Your task to perform on an android device: turn on data saver in the chrome app Image 0: 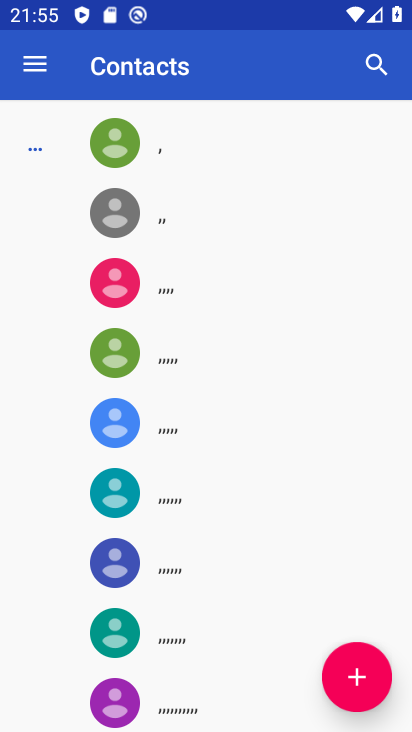
Step 0: press home button
Your task to perform on an android device: turn on data saver in the chrome app Image 1: 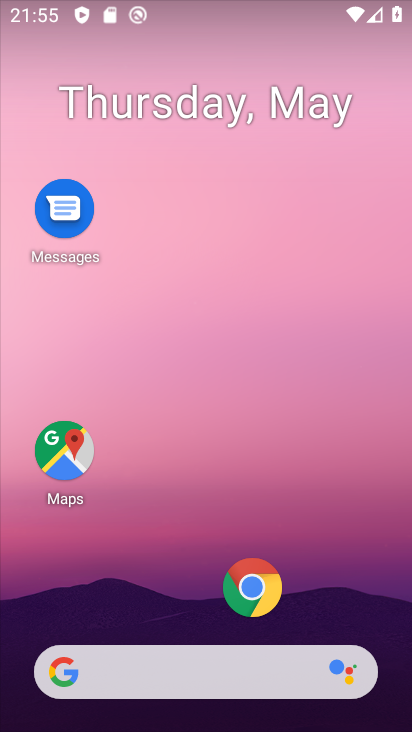
Step 1: click (240, 602)
Your task to perform on an android device: turn on data saver in the chrome app Image 2: 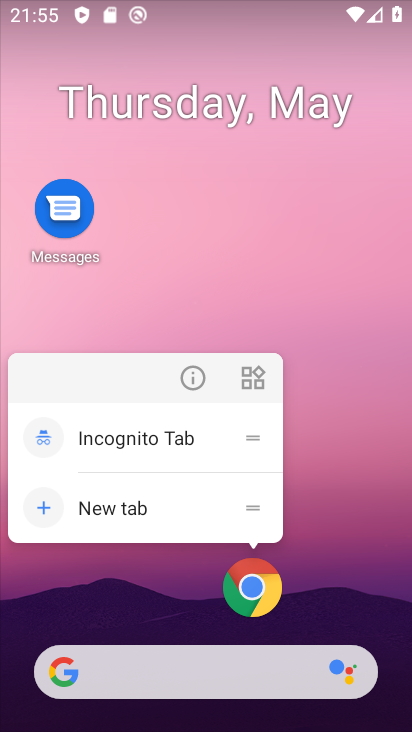
Step 2: click (247, 591)
Your task to perform on an android device: turn on data saver in the chrome app Image 3: 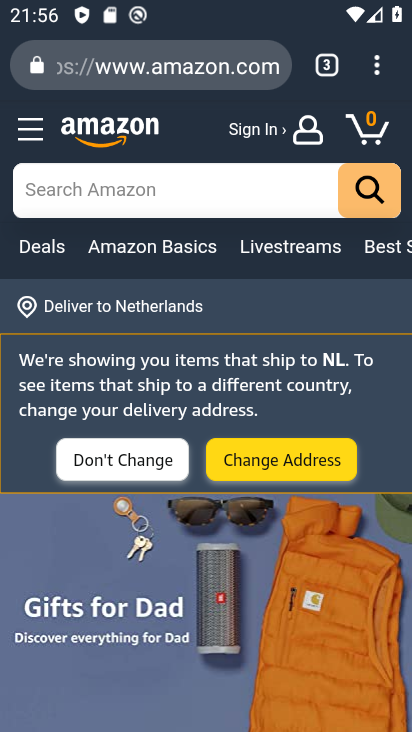
Step 3: click (376, 62)
Your task to perform on an android device: turn on data saver in the chrome app Image 4: 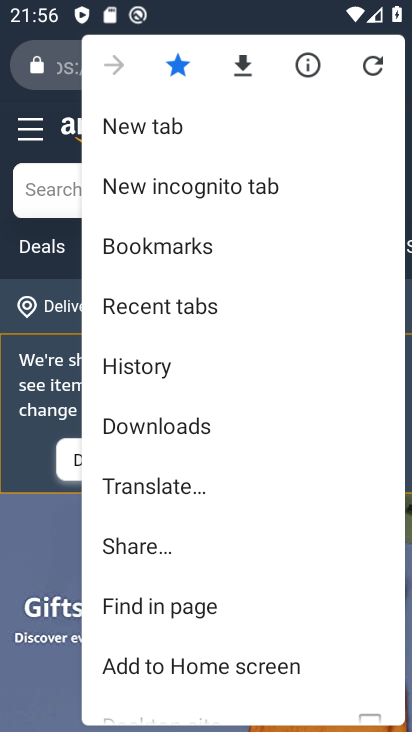
Step 4: drag from (225, 617) to (191, 101)
Your task to perform on an android device: turn on data saver in the chrome app Image 5: 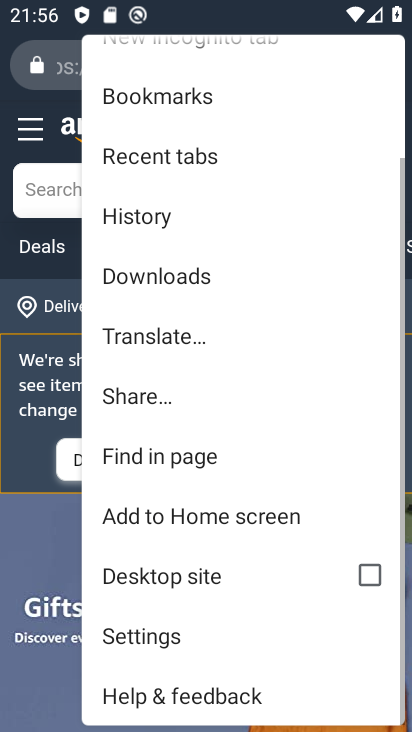
Step 5: click (143, 629)
Your task to perform on an android device: turn on data saver in the chrome app Image 6: 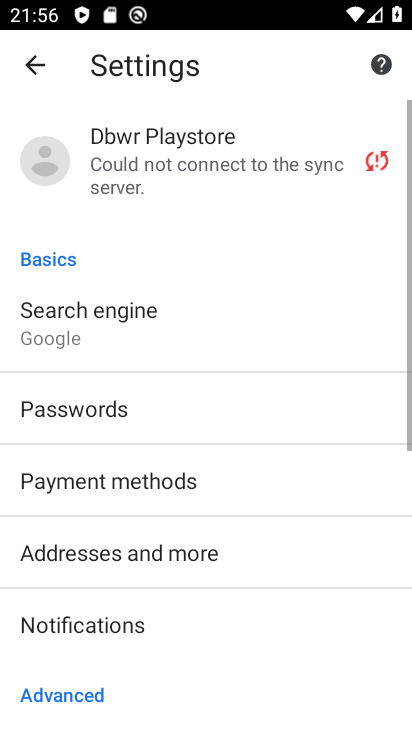
Step 6: drag from (143, 629) to (127, 24)
Your task to perform on an android device: turn on data saver in the chrome app Image 7: 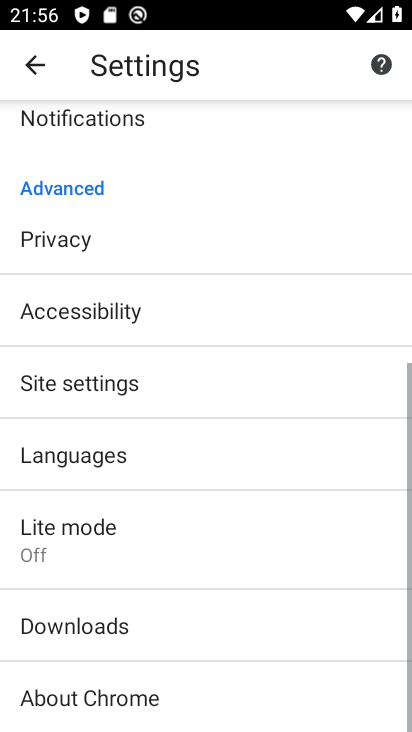
Step 7: click (75, 540)
Your task to perform on an android device: turn on data saver in the chrome app Image 8: 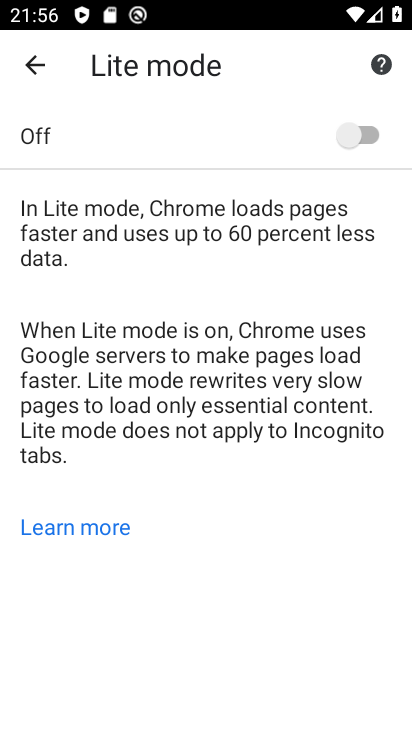
Step 8: click (351, 137)
Your task to perform on an android device: turn on data saver in the chrome app Image 9: 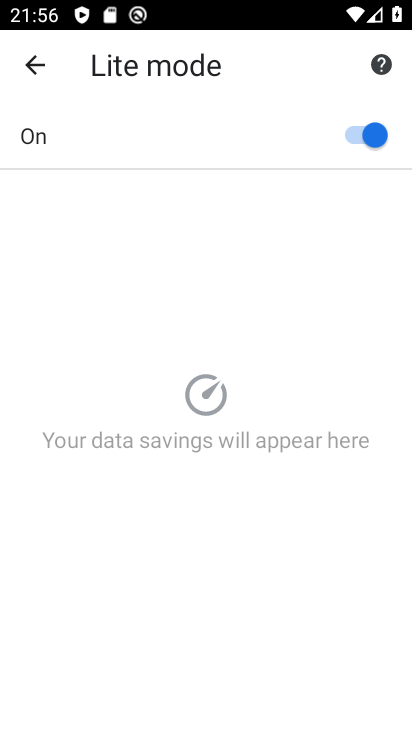
Step 9: task complete